Your task to perform on an android device: add a contact Image 0: 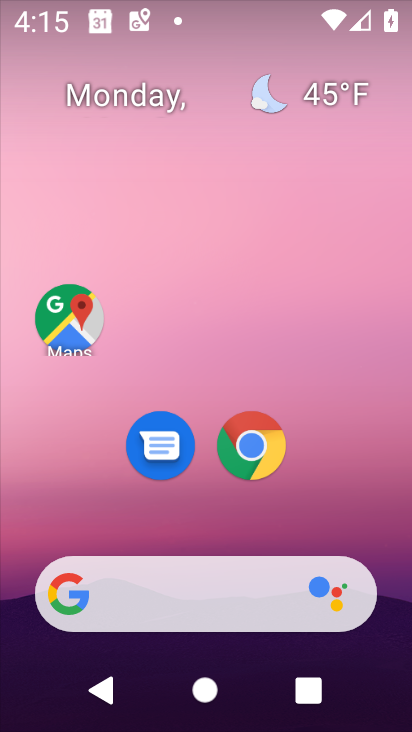
Step 0: drag from (274, 522) to (271, 51)
Your task to perform on an android device: add a contact Image 1: 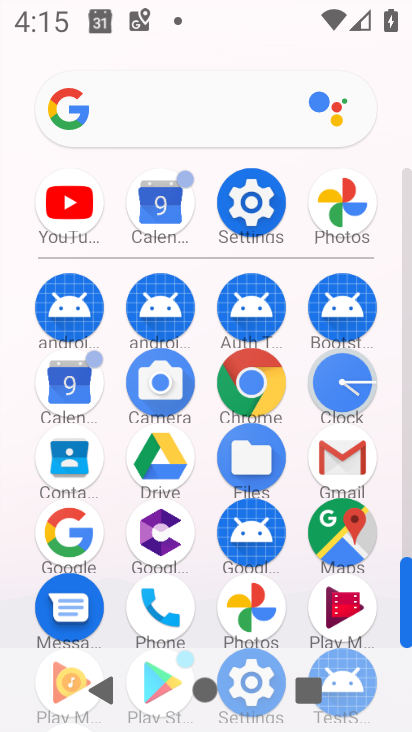
Step 1: click (74, 468)
Your task to perform on an android device: add a contact Image 2: 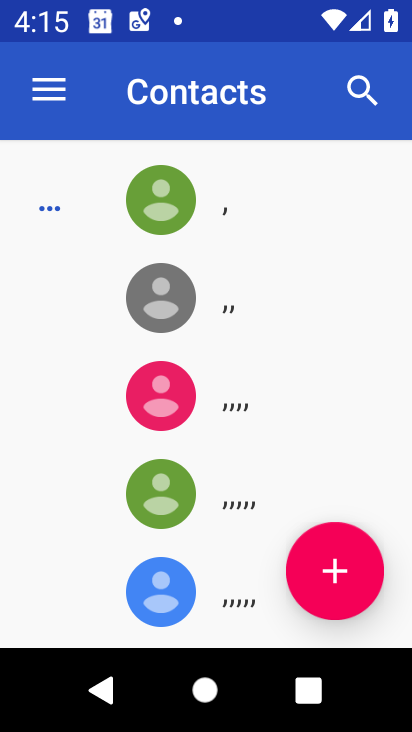
Step 2: click (332, 561)
Your task to perform on an android device: add a contact Image 3: 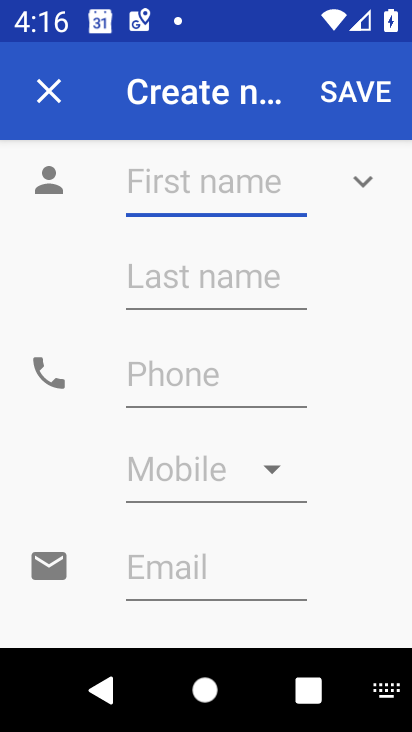
Step 3: type "nmjljiokm"
Your task to perform on an android device: add a contact Image 4: 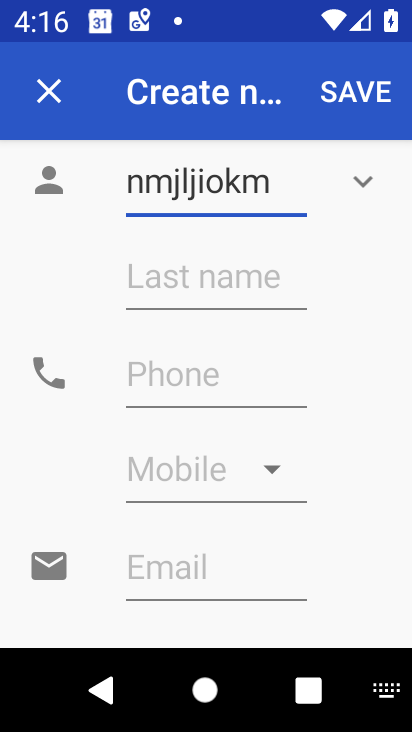
Step 4: click (194, 388)
Your task to perform on an android device: add a contact Image 5: 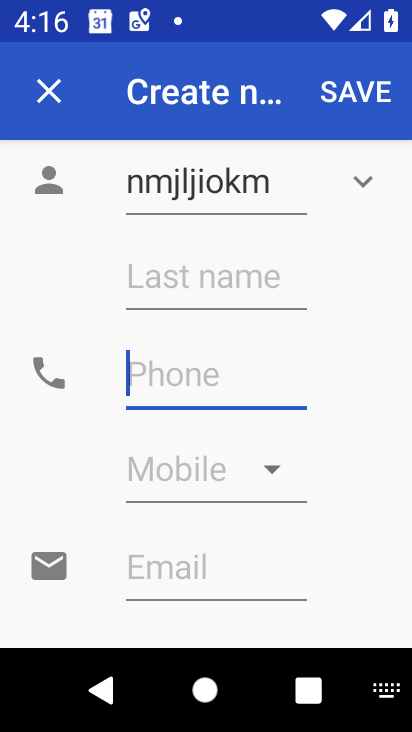
Step 5: type "67565776767"
Your task to perform on an android device: add a contact Image 6: 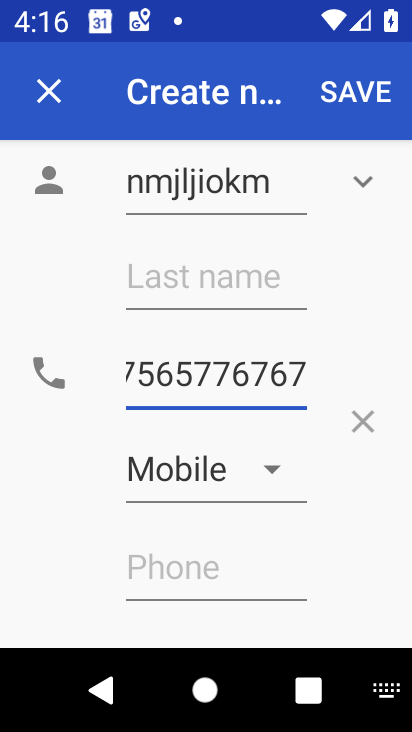
Step 6: click (377, 79)
Your task to perform on an android device: add a contact Image 7: 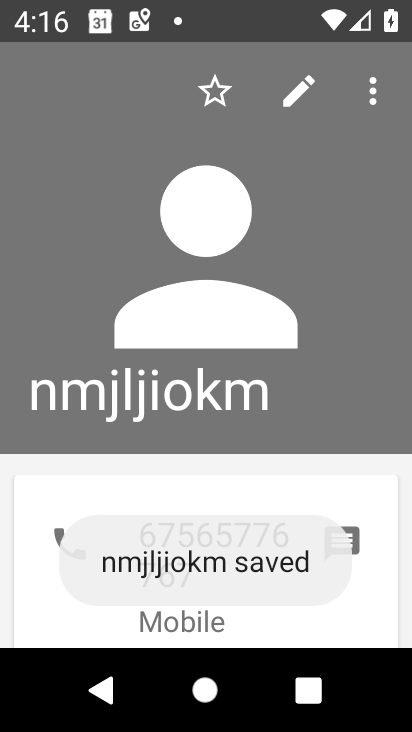
Step 7: task complete